Your task to perform on an android device: Open Amazon Image 0: 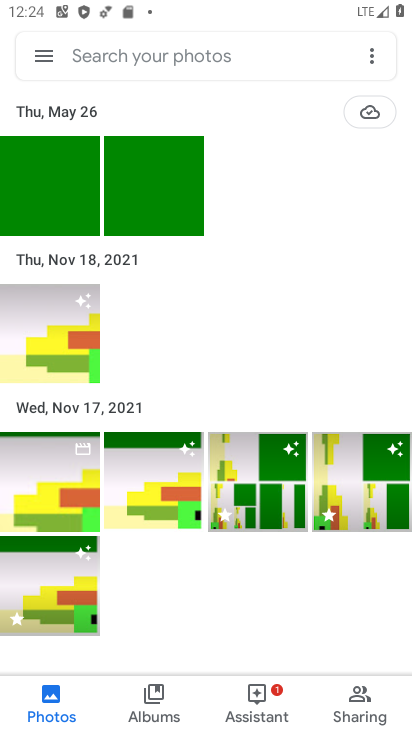
Step 0: press home button
Your task to perform on an android device: Open Amazon Image 1: 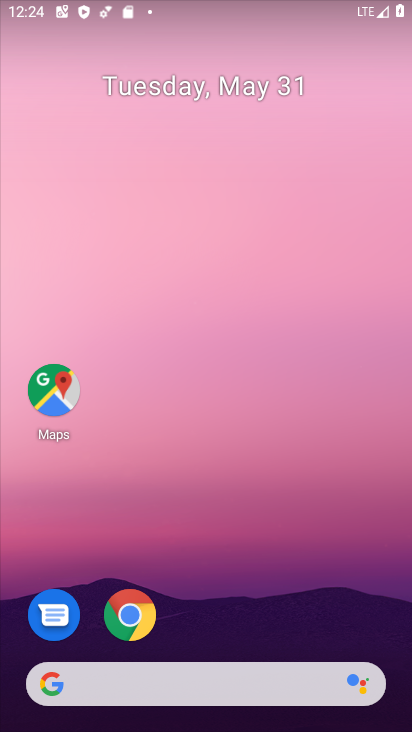
Step 1: click (134, 635)
Your task to perform on an android device: Open Amazon Image 2: 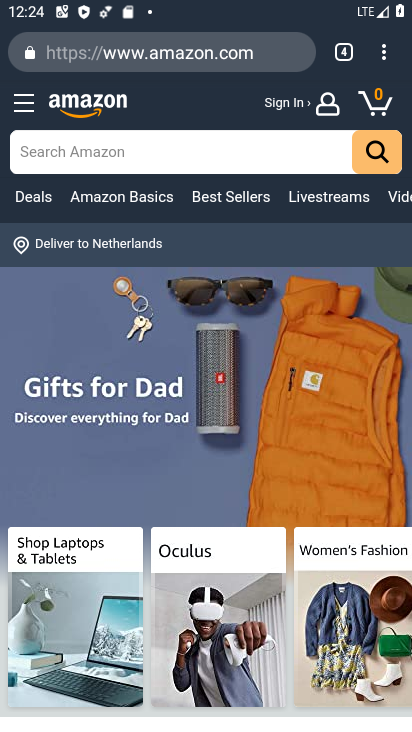
Step 2: task complete